Your task to perform on an android device: stop showing notifications on the lock screen Image 0: 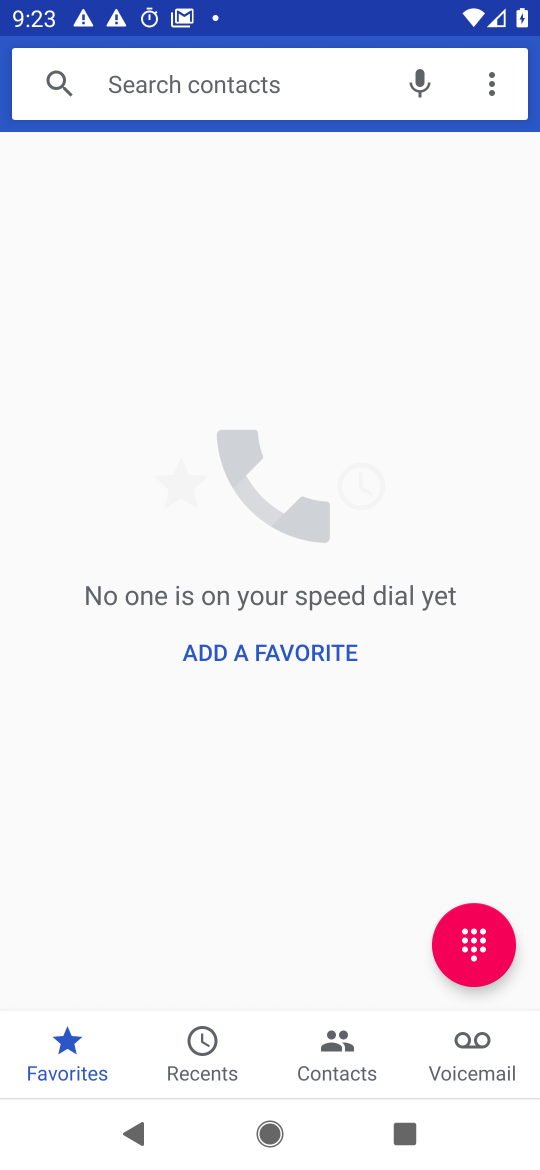
Step 0: press back button
Your task to perform on an android device: stop showing notifications on the lock screen Image 1: 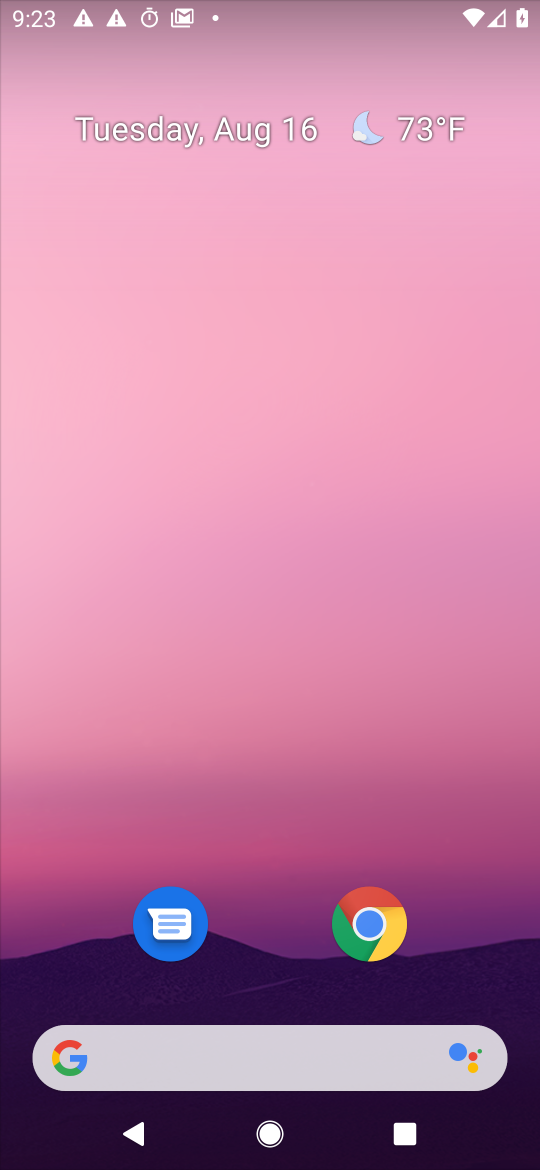
Step 1: drag from (261, 1008) to (423, 7)
Your task to perform on an android device: stop showing notifications on the lock screen Image 2: 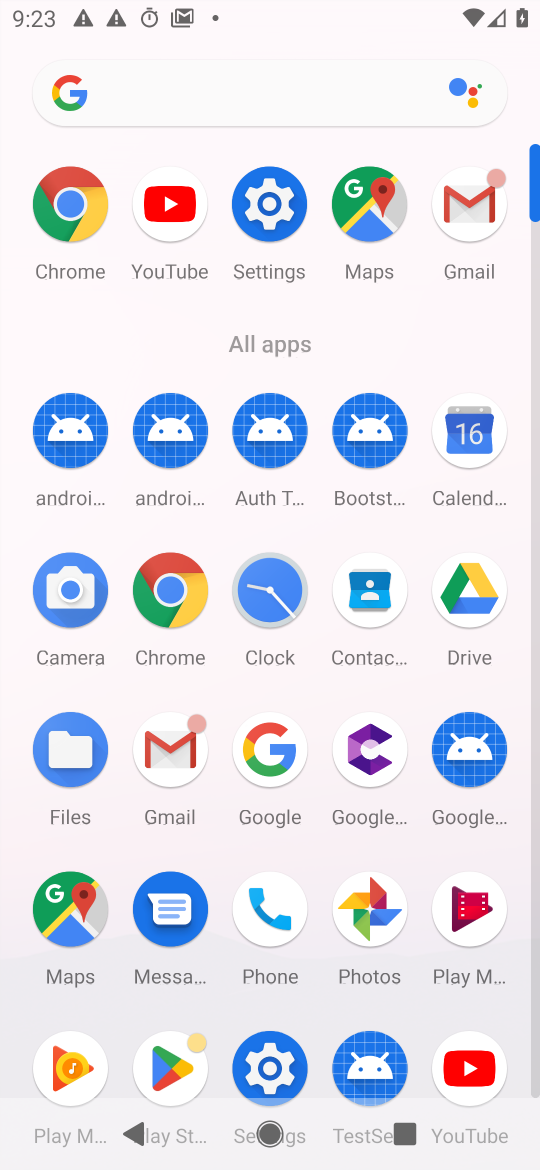
Step 2: click (261, 195)
Your task to perform on an android device: stop showing notifications on the lock screen Image 3: 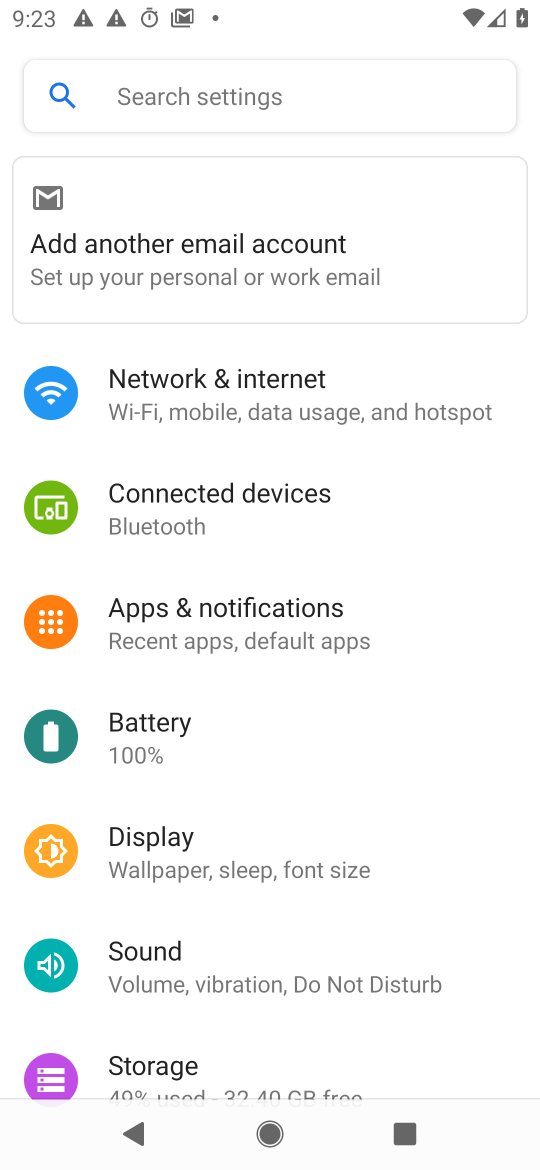
Step 3: click (173, 638)
Your task to perform on an android device: stop showing notifications on the lock screen Image 4: 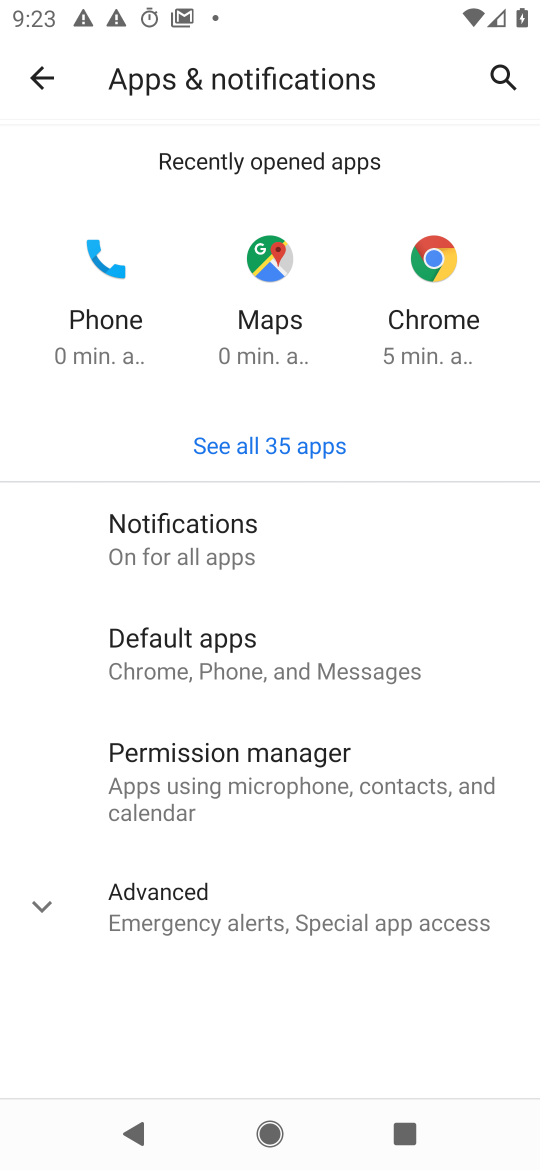
Step 4: click (255, 550)
Your task to perform on an android device: stop showing notifications on the lock screen Image 5: 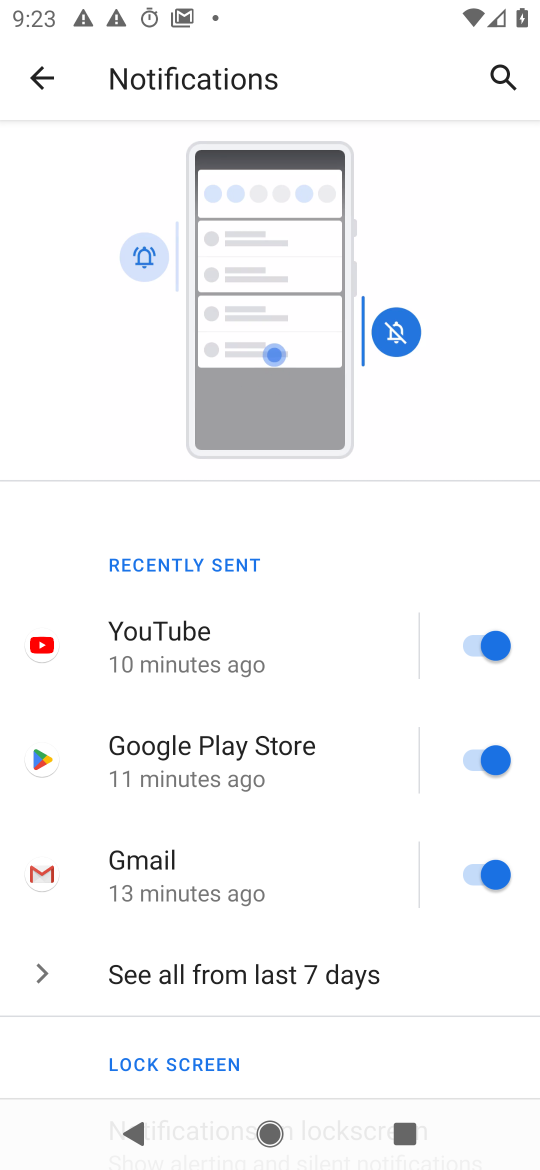
Step 5: drag from (248, 1050) to (390, 392)
Your task to perform on an android device: stop showing notifications on the lock screen Image 6: 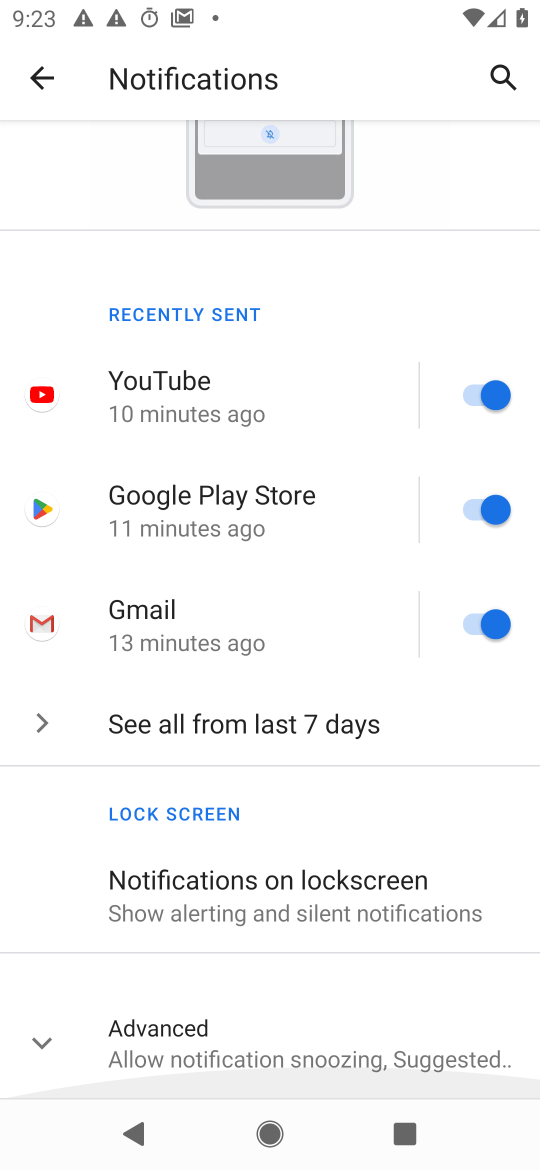
Step 6: click (312, 891)
Your task to perform on an android device: stop showing notifications on the lock screen Image 7: 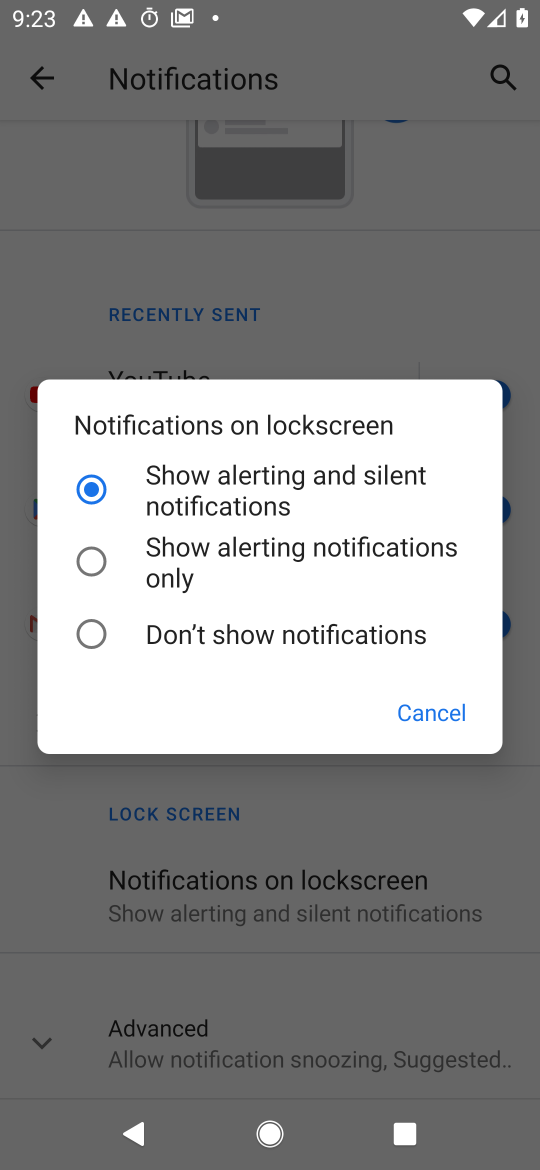
Step 7: click (112, 631)
Your task to perform on an android device: stop showing notifications on the lock screen Image 8: 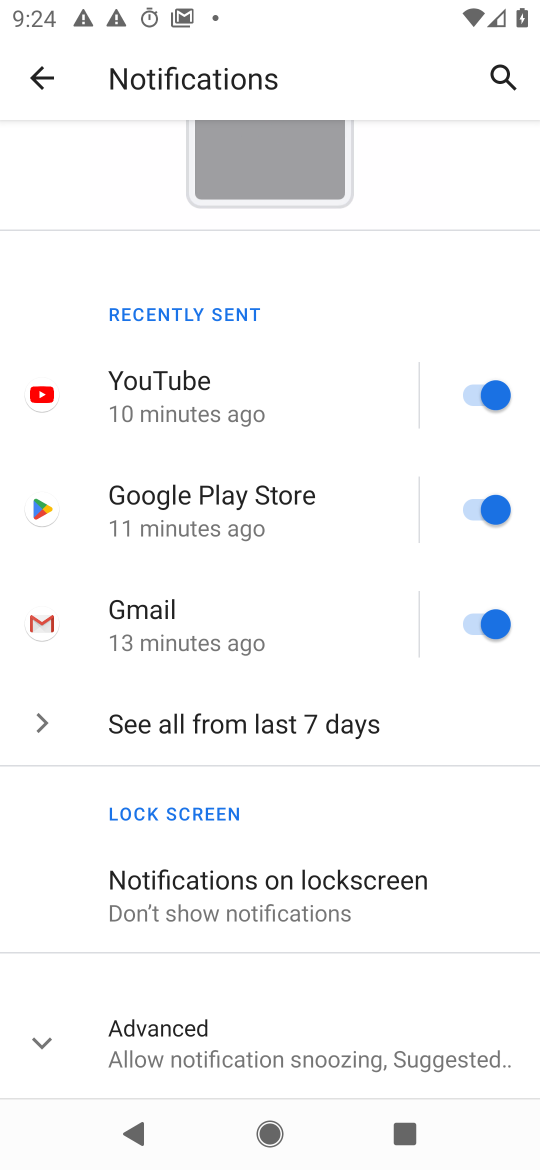
Step 8: task complete